Your task to perform on an android device: open a new tab in the chrome app Image 0: 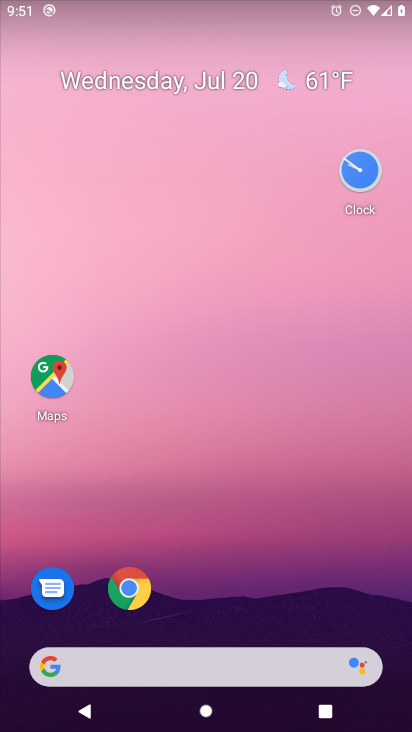
Step 0: click (112, 596)
Your task to perform on an android device: open a new tab in the chrome app Image 1: 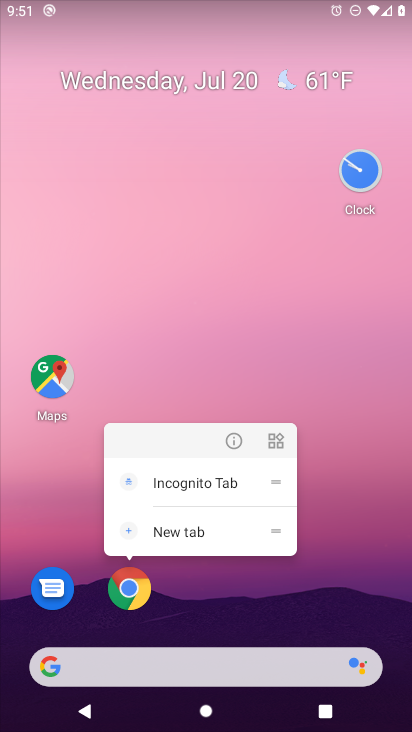
Step 1: click (126, 581)
Your task to perform on an android device: open a new tab in the chrome app Image 2: 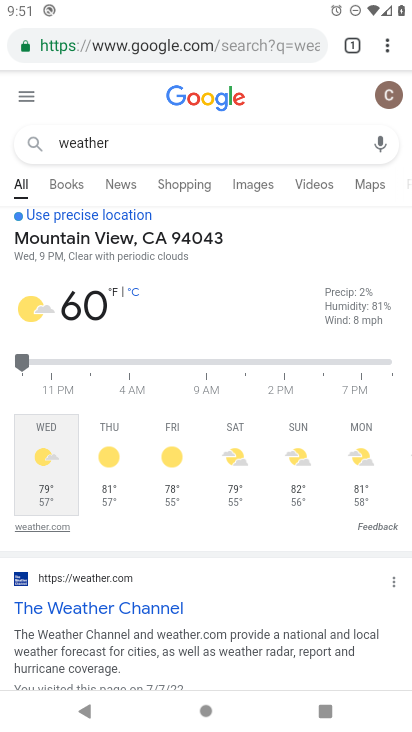
Step 2: click (389, 43)
Your task to perform on an android device: open a new tab in the chrome app Image 3: 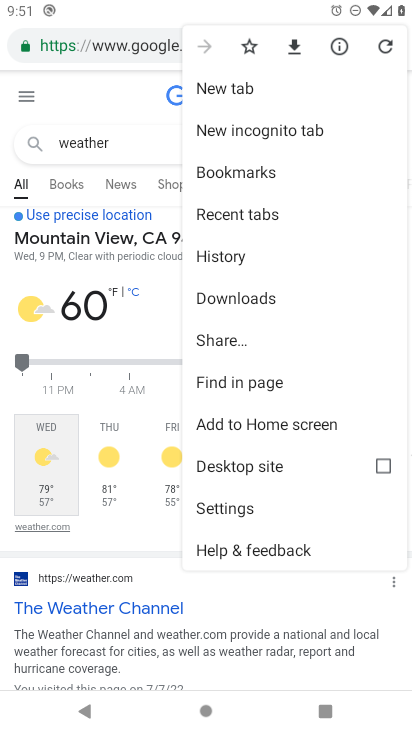
Step 3: click (381, 43)
Your task to perform on an android device: open a new tab in the chrome app Image 4: 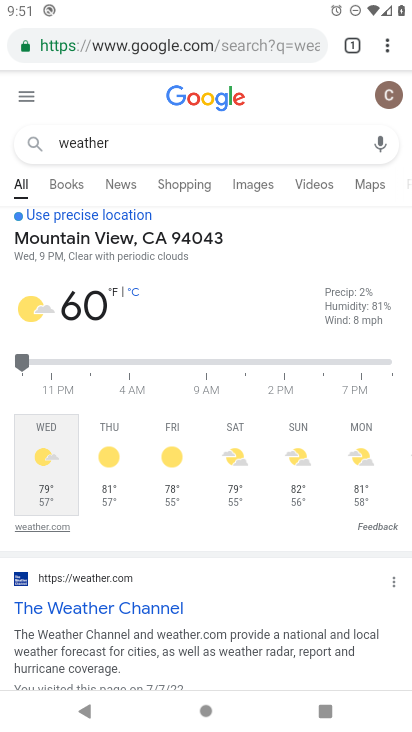
Step 4: click (391, 41)
Your task to perform on an android device: open a new tab in the chrome app Image 5: 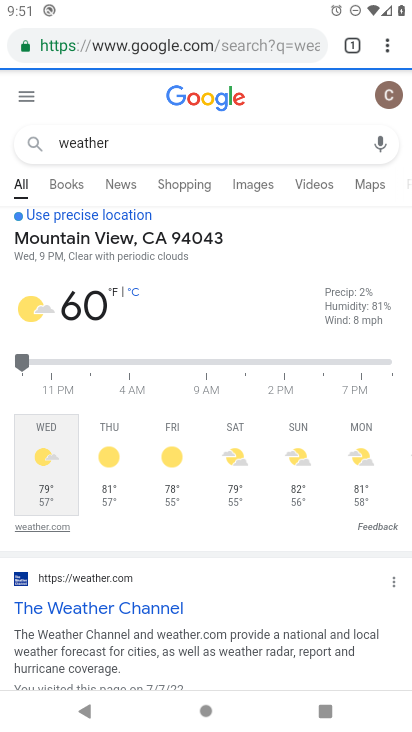
Step 5: click (387, 41)
Your task to perform on an android device: open a new tab in the chrome app Image 6: 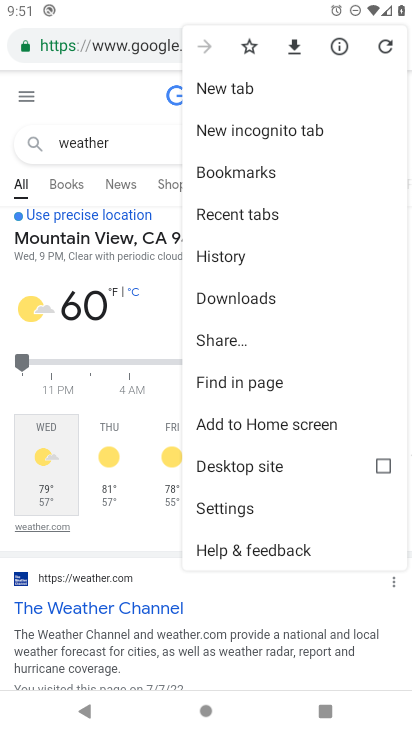
Step 6: click (218, 90)
Your task to perform on an android device: open a new tab in the chrome app Image 7: 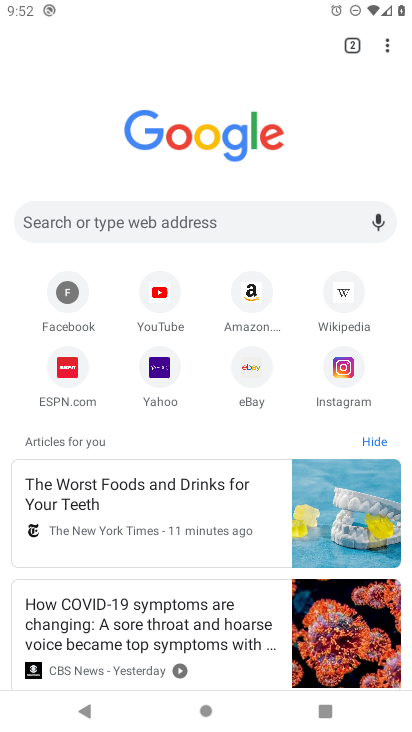
Step 7: task complete